Your task to perform on an android device: turn on translation in the chrome app Image 0: 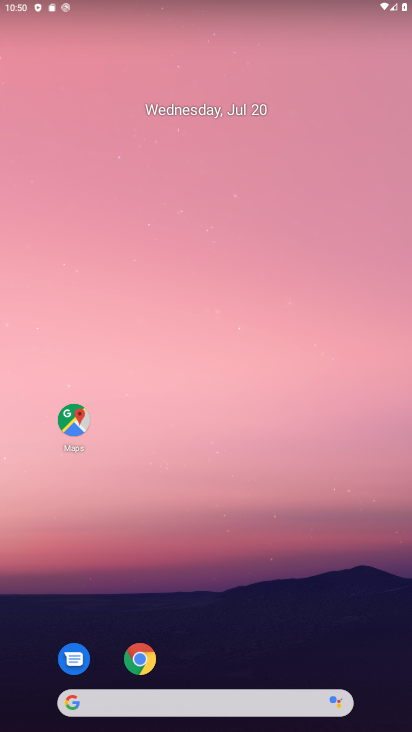
Step 0: click (130, 662)
Your task to perform on an android device: turn on translation in the chrome app Image 1: 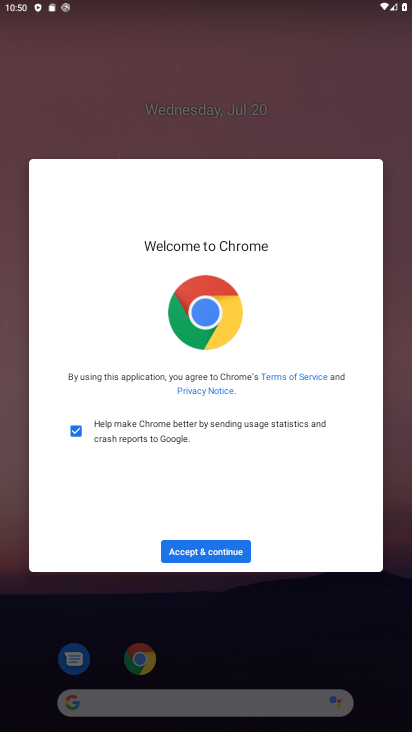
Step 1: click (197, 555)
Your task to perform on an android device: turn on translation in the chrome app Image 2: 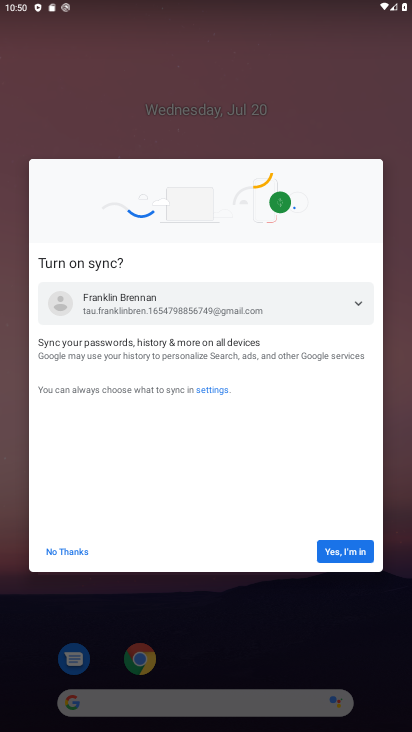
Step 2: click (359, 551)
Your task to perform on an android device: turn on translation in the chrome app Image 3: 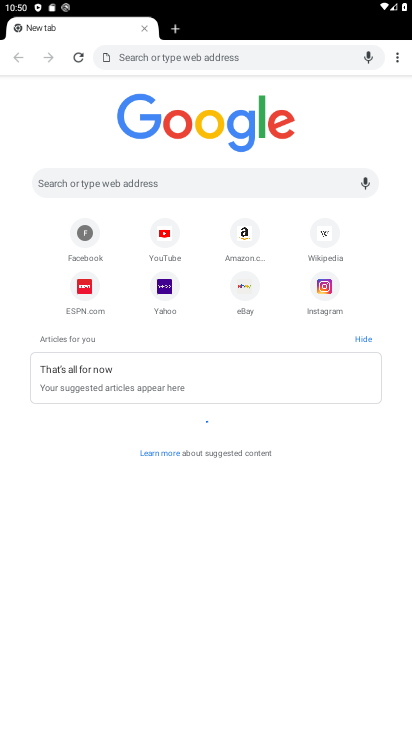
Step 3: click (390, 63)
Your task to perform on an android device: turn on translation in the chrome app Image 4: 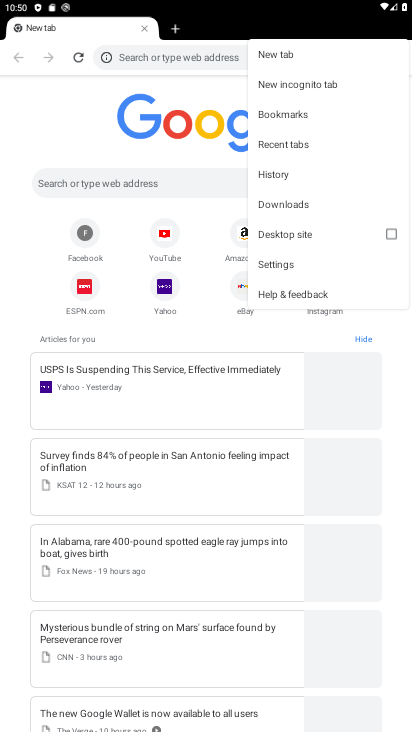
Step 4: click (271, 261)
Your task to perform on an android device: turn on translation in the chrome app Image 5: 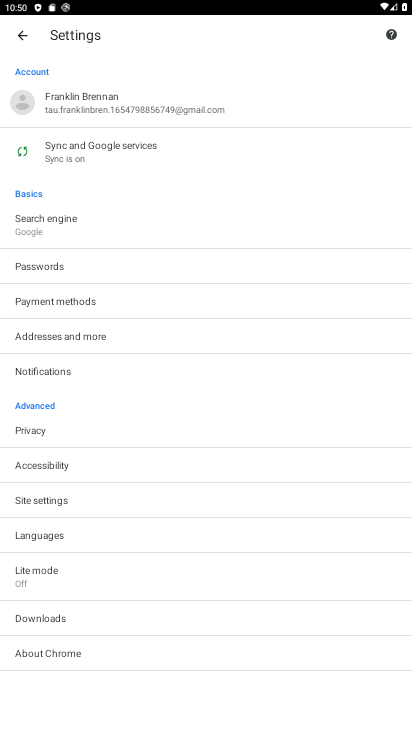
Step 5: click (40, 537)
Your task to perform on an android device: turn on translation in the chrome app Image 6: 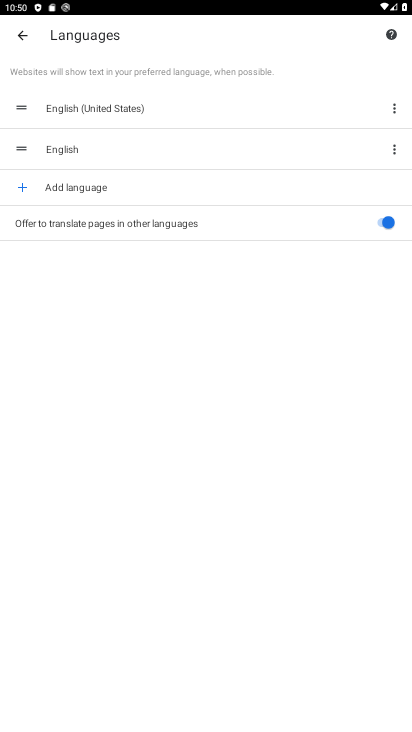
Step 6: task complete